Your task to perform on an android device: Open Wikipedia Image 0: 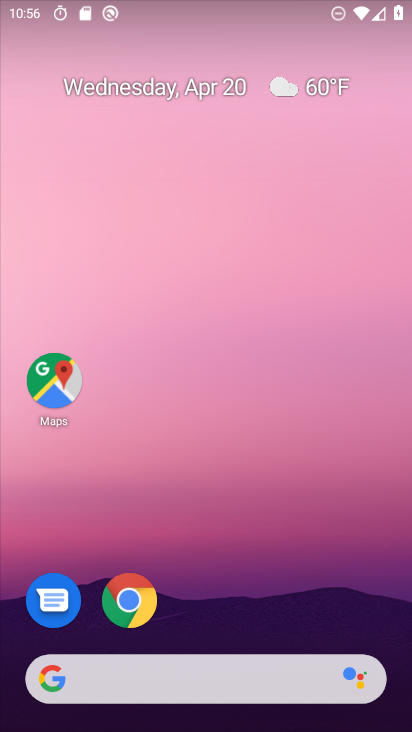
Step 0: drag from (242, 595) to (247, 155)
Your task to perform on an android device: Open Wikipedia Image 1: 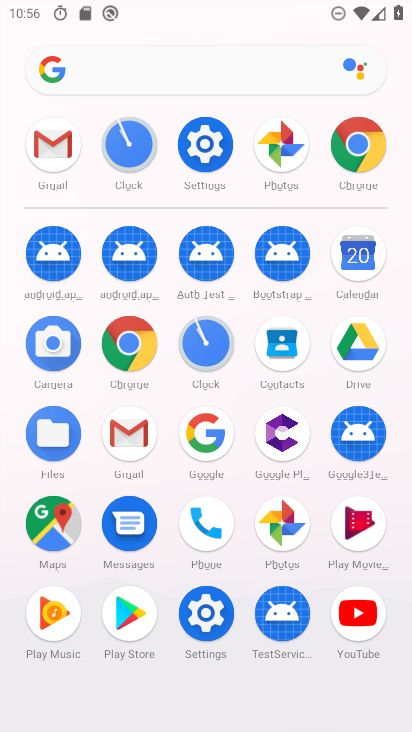
Step 1: click (132, 342)
Your task to perform on an android device: Open Wikipedia Image 2: 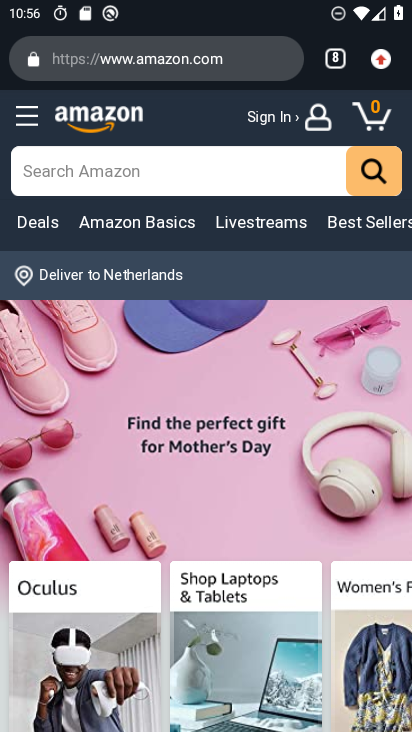
Step 2: click (334, 66)
Your task to perform on an android device: Open Wikipedia Image 3: 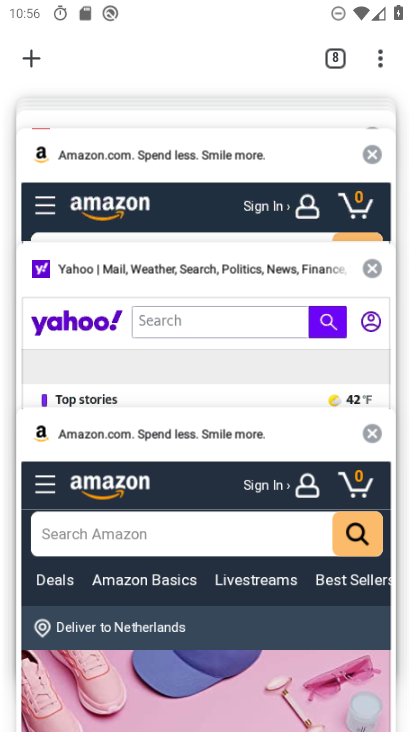
Step 3: click (42, 49)
Your task to perform on an android device: Open Wikipedia Image 4: 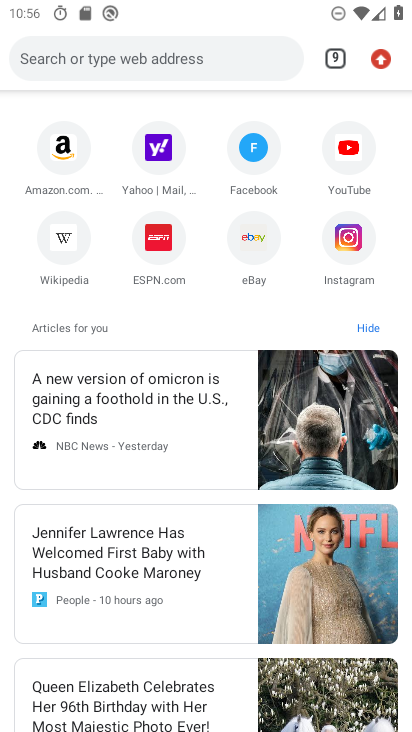
Step 4: click (62, 220)
Your task to perform on an android device: Open Wikipedia Image 5: 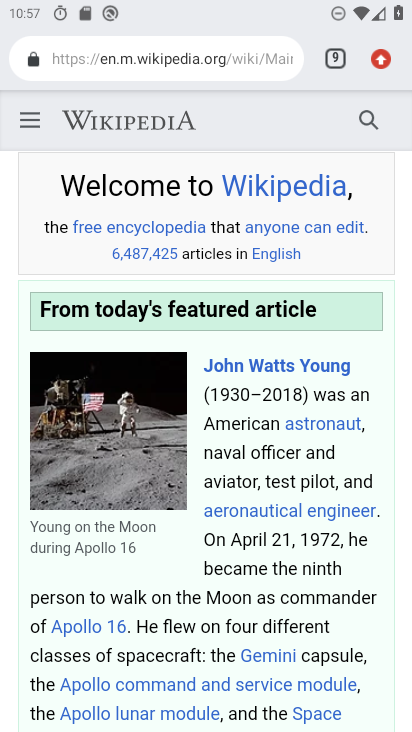
Step 5: task complete